Your task to perform on an android device: Open Google Maps Image 0: 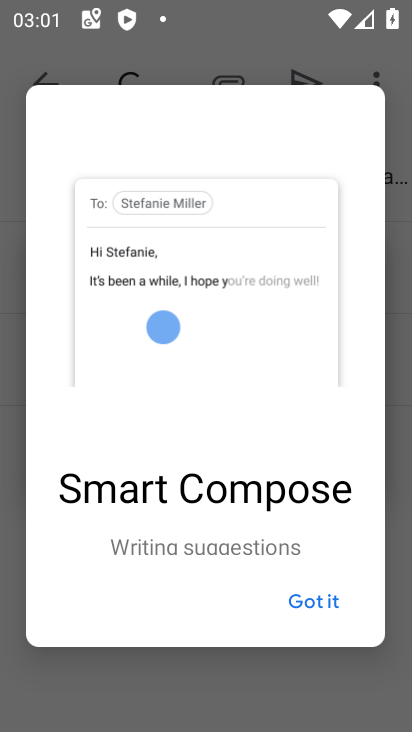
Step 0: press home button
Your task to perform on an android device: Open Google Maps Image 1: 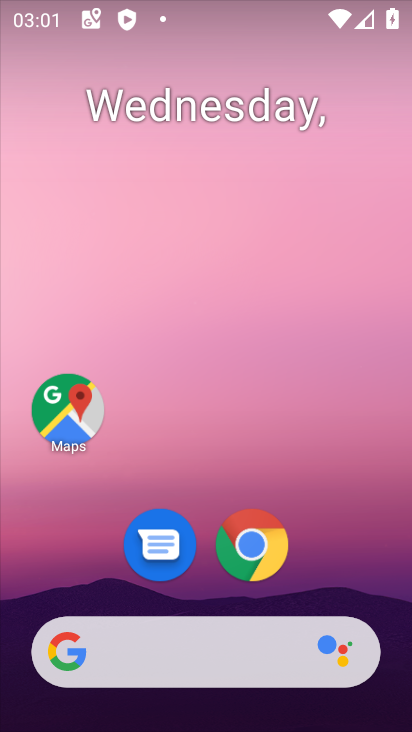
Step 1: click (42, 400)
Your task to perform on an android device: Open Google Maps Image 2: 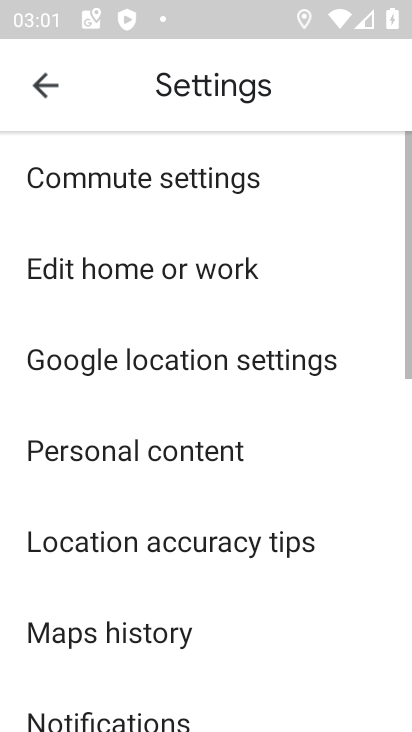
Step 2: click (44, 89)
Your task to perform on an android device: Open Google Maps Image 3: 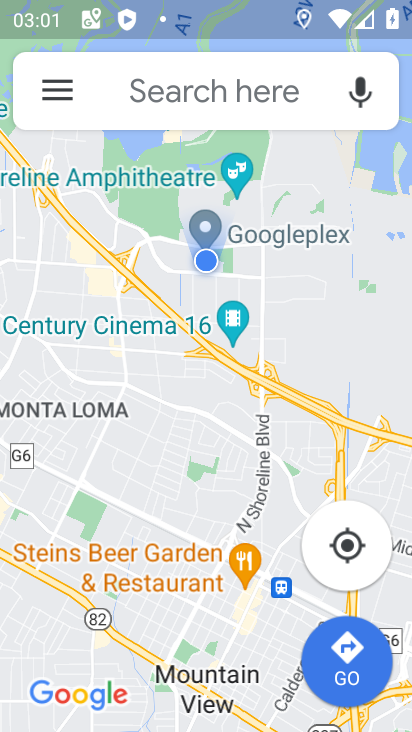
Step 3: task complete